Your task to perform on an android device: When is my next appointment? Image 0: 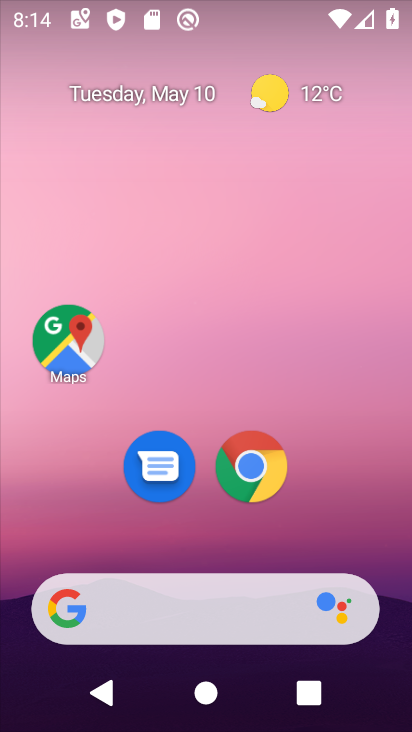
Step 0: drag from (221, 540) to (292, 69)
Your task to perform on an android device: When is my next appointment? Image 1: 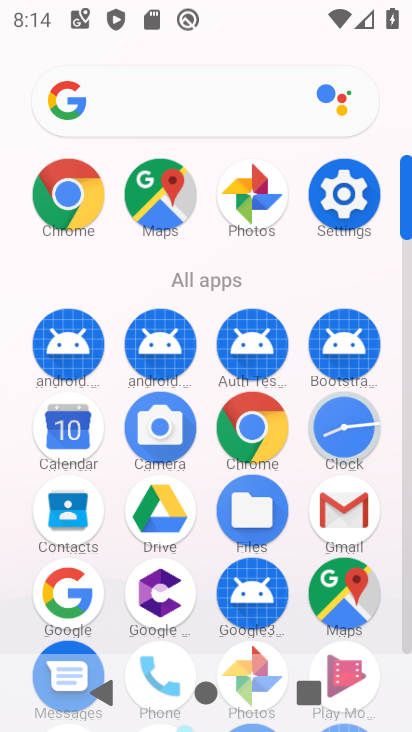
Step 1: click (82, 436)
Your task to perform on an android device: When is my next appointment? Image 2: 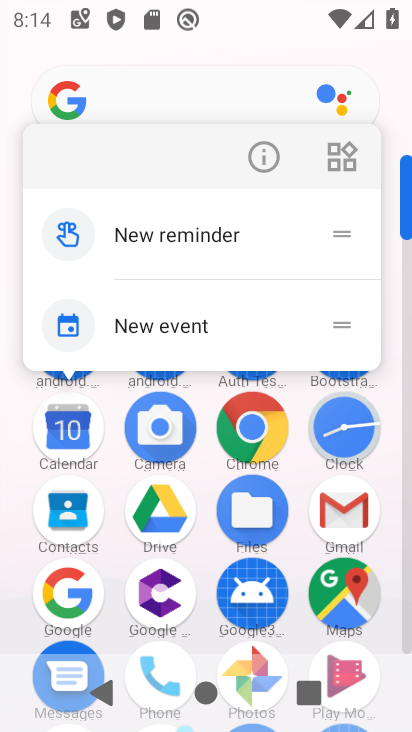
Step 2: click (74, 439)
Your task to perform on an android device: When is my next appointment? Image 3: 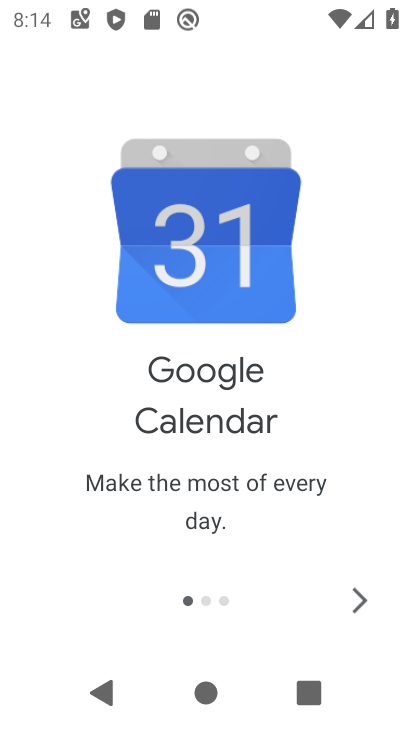
Step 3: click (362, 603)
Your task to perform on an android device: When is my next appointment? Image 4: 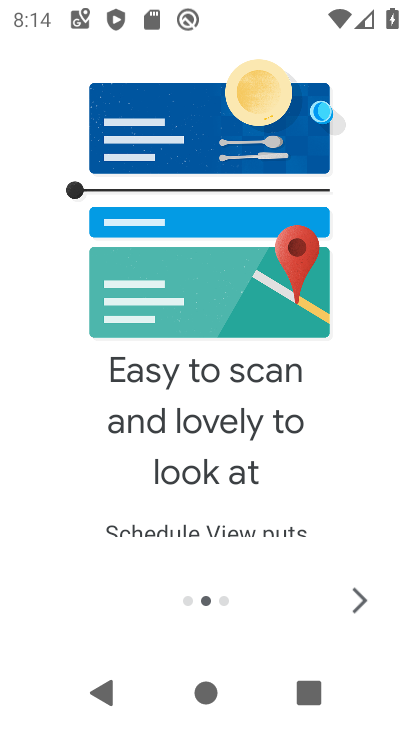
Step 4: click (359, 602)
Your task to perform on an android device: When is my next appointment? Image 5: 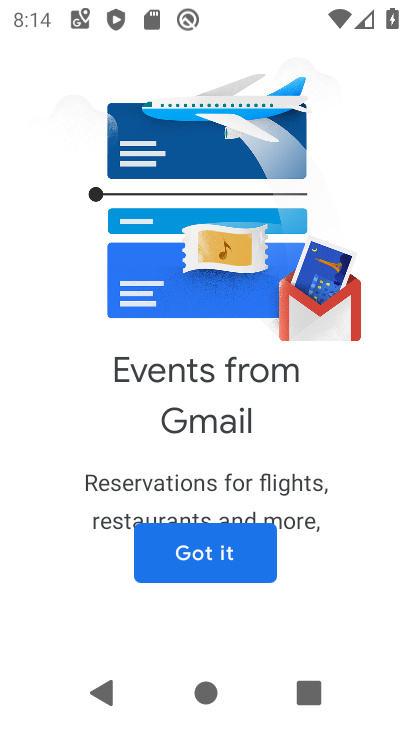
Step 5: click (218, 561)
Your task to perform on an android device: When is my next appointment? Image 6: 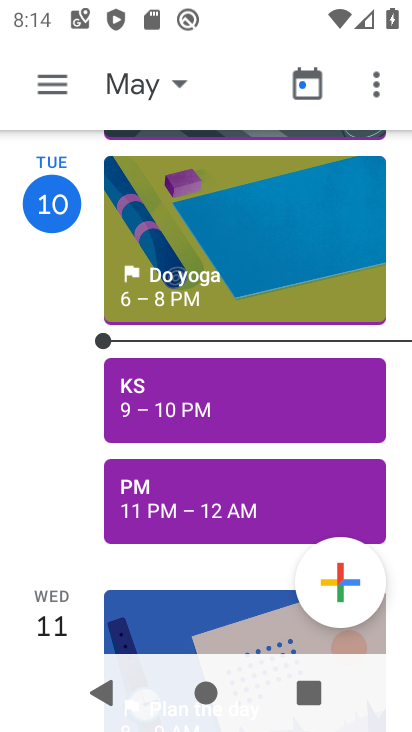
Step 6: task complete